Your task to perform on an android device: toggle improve location accuracy Image 0: 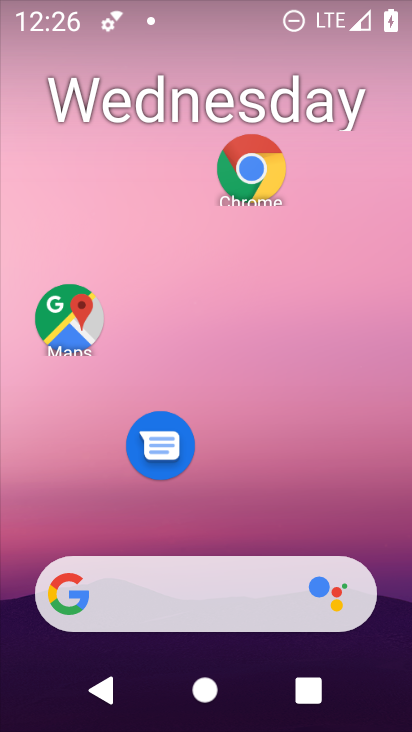
Step 0: drag from (209, 515) to (251, 15)
Your task to perform on an android device: toggle improve location accuracy Image 1: 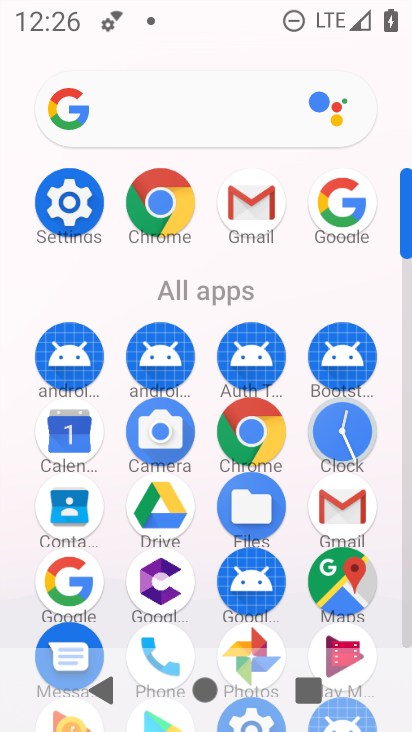
Step 1: click (63, 204)
Your task to perform on an android device: toggle improve location accuracy Image 2: 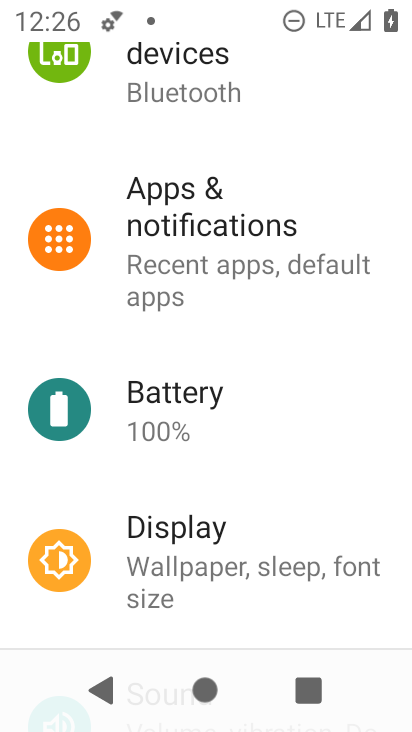
Step 2: click (258, 162)
Your task to perform on an android device: toggle improve location accuracy Image 3: 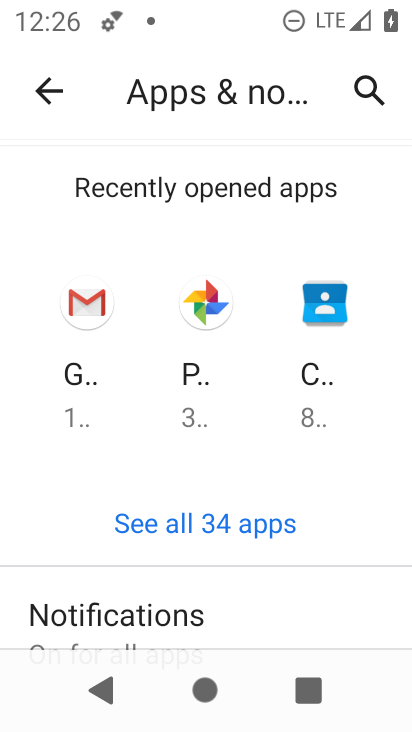
Step 3: press back button
Your task to perform on an android device: toggle improve location accuracy Image 4: 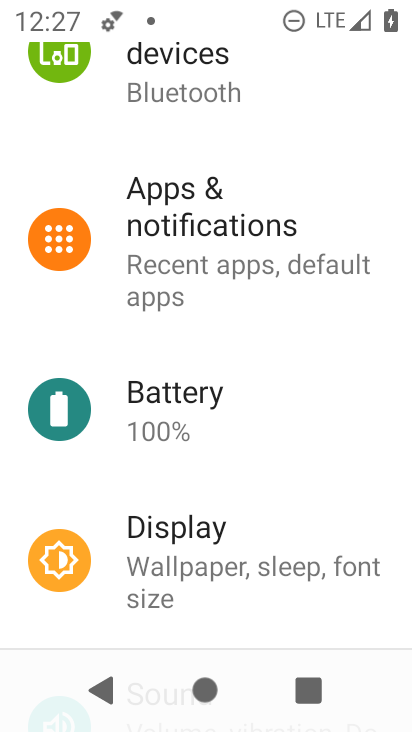
Step 4: drag from (232, 532) to (216, 174)
Your task to perform on an android device: toggle improve location accuracy Image 5: 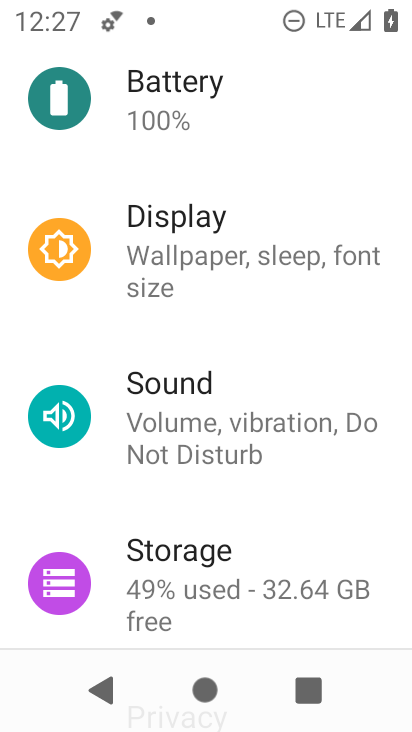
Step 5: drag from (225, 494) to (239, 64)
Your task to perform on an android device: toggle improve location accuracy Image 6: 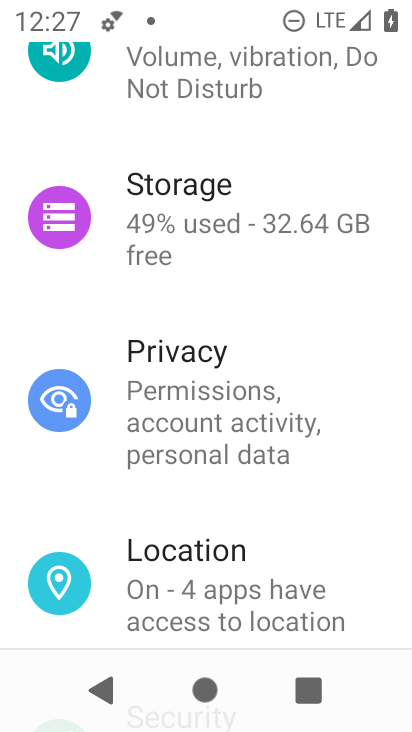
Step 6: drag from (244, 510) to (289, 195)
Your task to perform on an android device: toggle improve location accuracy Image 7: 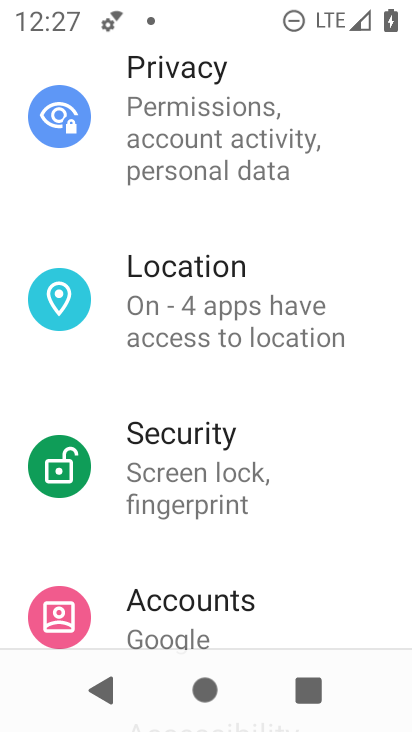
Step 7: click (200, 314)
Your task to perform on an android device: toggle improve location accuracy Image 8: 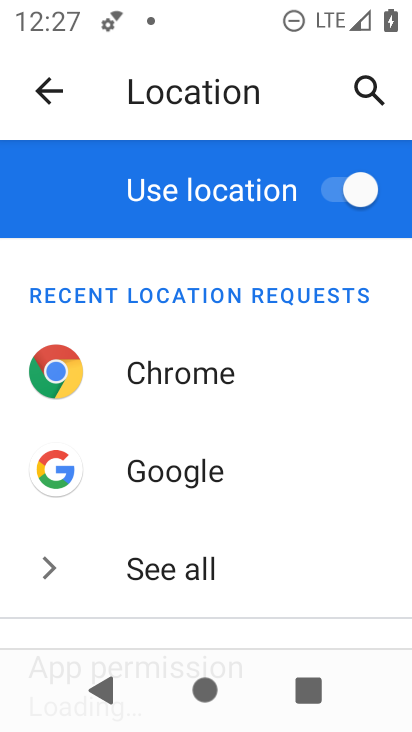
Step 8: drag from (225, 634) to (198, 307)
Your task to perform on an android device: toggle improve location accuracy Image 9: 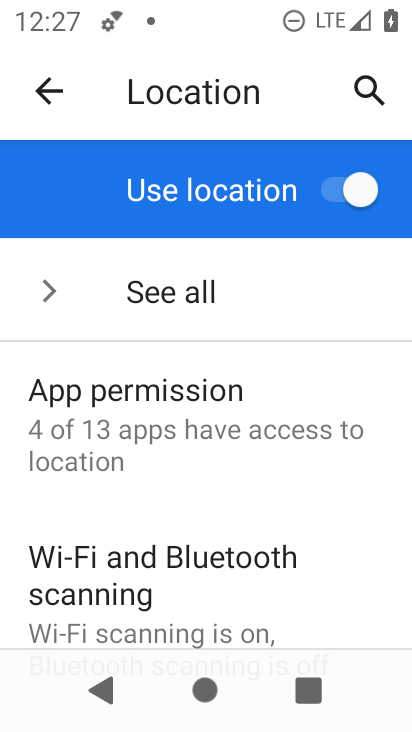
Step 9: drag from (152, 604) to (187, 296)
Your task to perform on an android device: toggle improve location accuracy Image 10: 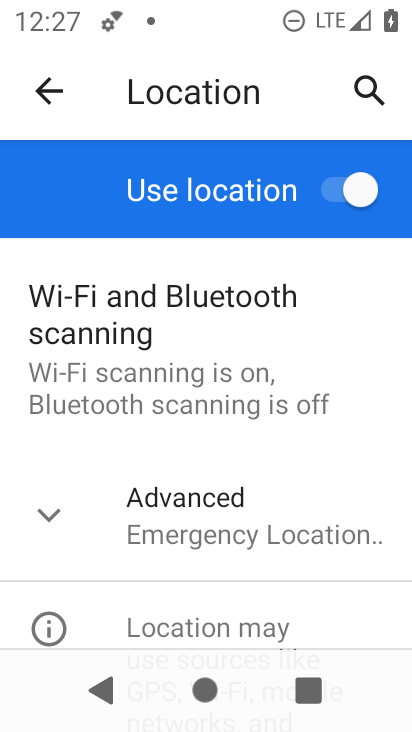
Step 10: click (149, 536)
Your task to perform on an android device: toggle improve location accuracy Image 11: 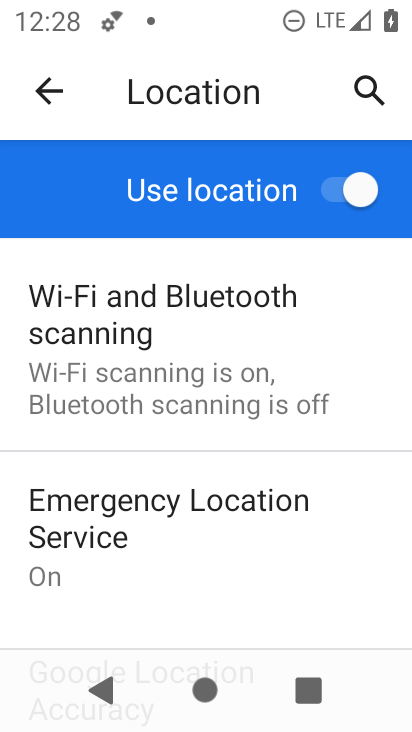
Step 11: drag from (120, 636) to (134, 403)
Your task to perform on an android device: toggle improve location accuracy Image 12: 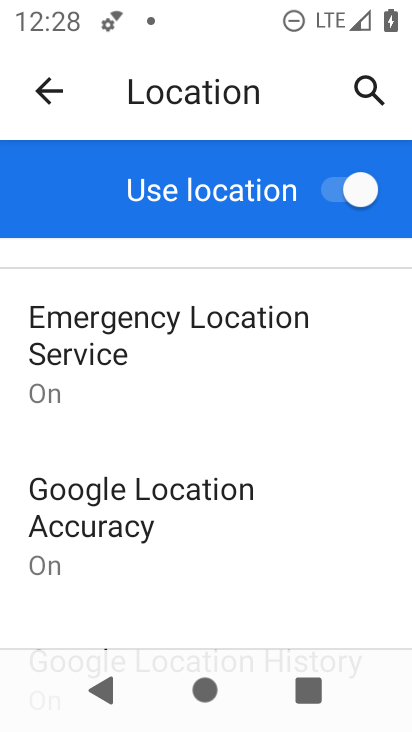
Step 12: click (160, 532)
Your task to perform on an android device: toggle improve location accuracy Image 13: 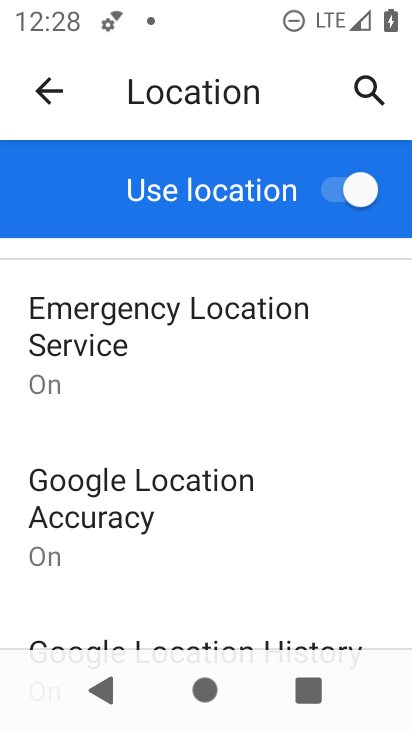
Step 13: click (130, 509)
Your task to perform on an android device: toggle improve location accuracy Image 14: 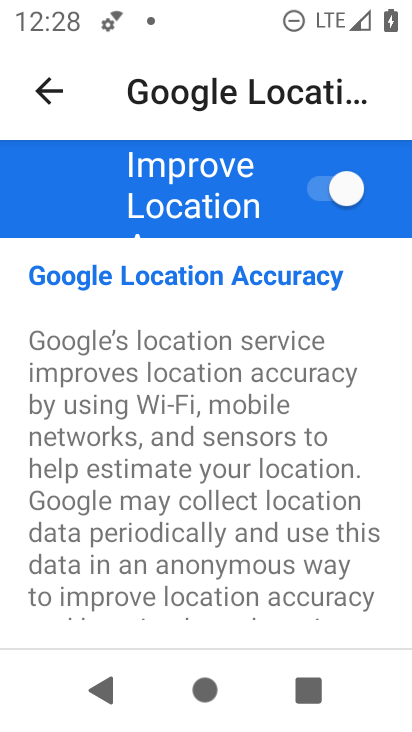
Step 14: click (308, 193)
Your task to perform on an android device: toggle improve location accuracy Image 15: 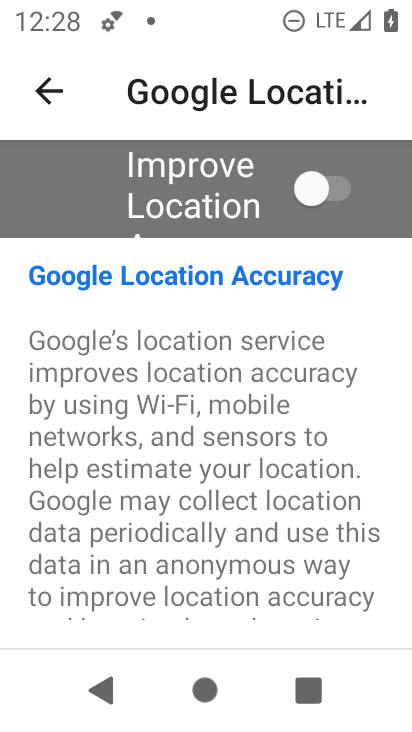
Step 15: task complete